Your task to perform on an android device: What's on my calendar today? Image 0: 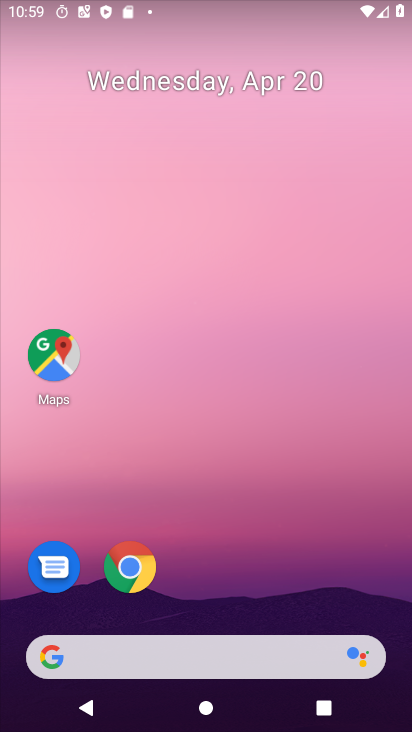
Step 0: drag from (319, 565) to (304, 279)
Your task to perform on an android device: What's on my calendar today? Image 1: 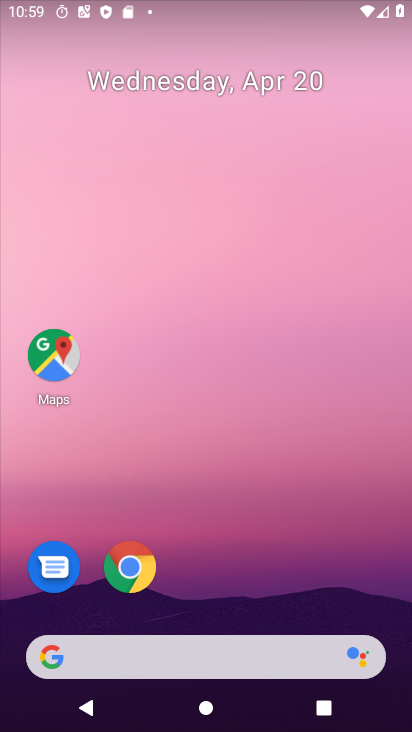
Step 1: drag from (308, 563) to (280, 135)
Your task to perform on an android device: What's on my calendar today? Image 2: 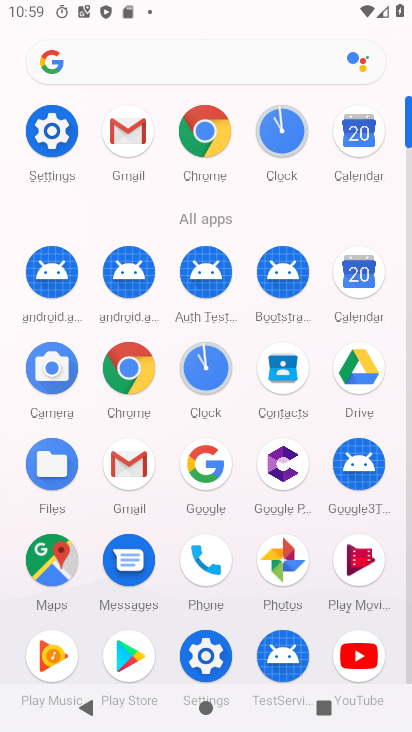
Step 2: click (349, 283)
Your task to perform on an android device: What's on my calendar today? Image 3: 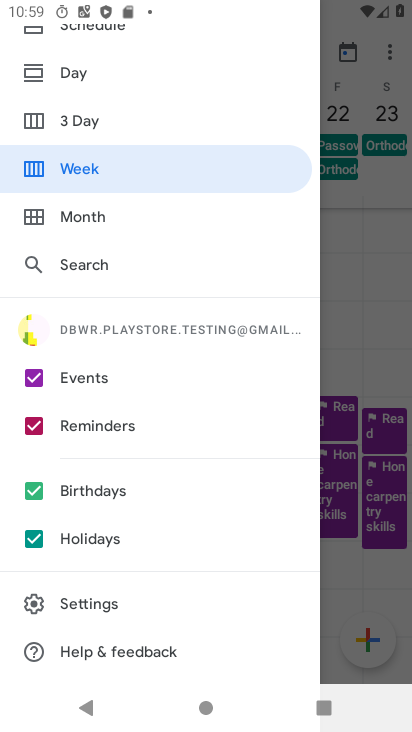
Step 3: click (112, 82)
Your task to perform on an android device: What's on my calendar today? Image 4: 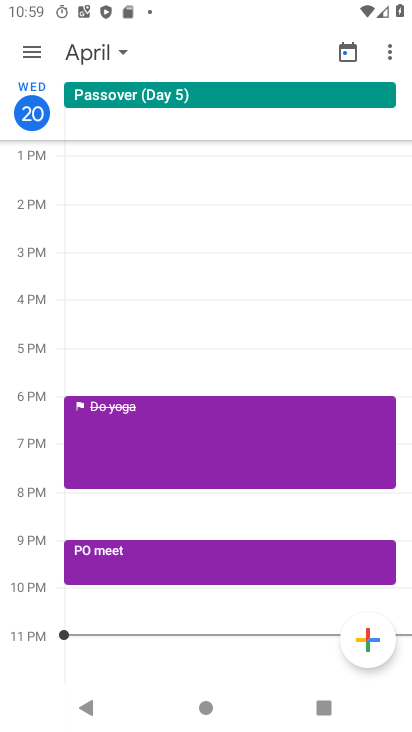
Step 4: task complete